Your task to perform on an android device: toggle priority inbox in the gmail app Image 0: 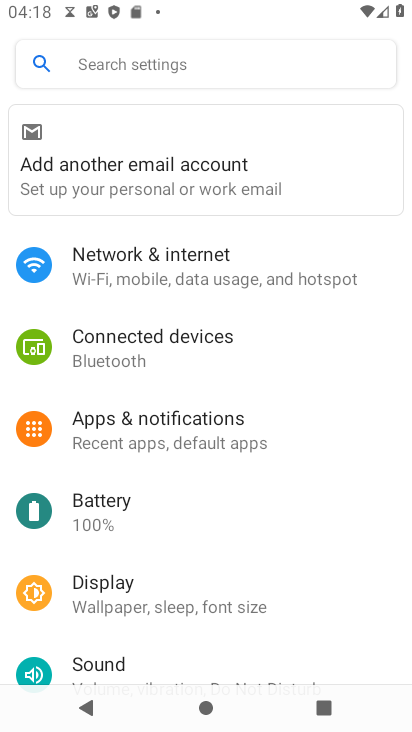
Step 0: press back button
Your task to perform on an android device: toggle priority inbox in the gmail app Image 1: 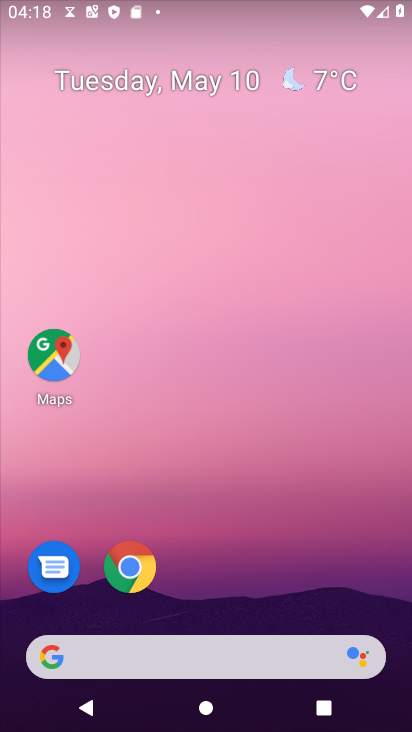
Step 1: drag from (222, 593) to (222, 182)
Your task to perform on an android device: toggle priority inbox in the gmail app Image 2: 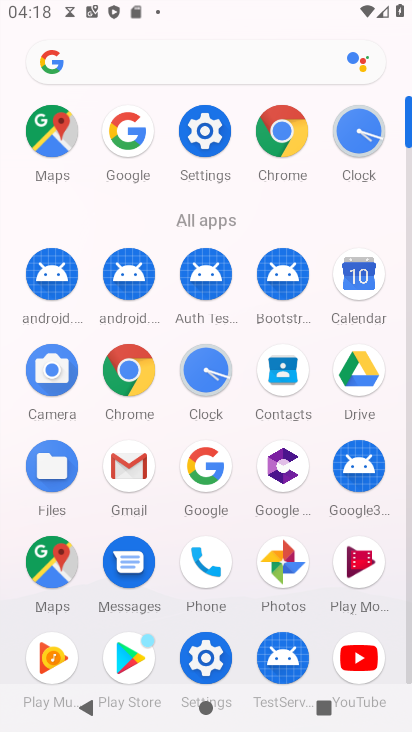
Step 2: click (129, 468)
Your task to perform on an android device: toggle priority inbox in the gmail app Image 3: 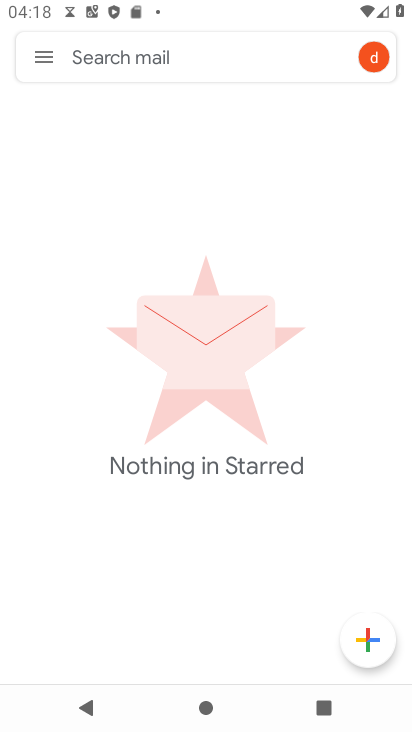
Step 3: click (36, 60)
Your task to perform on an android device: toggle priority inbox in the gmail app Image 4: 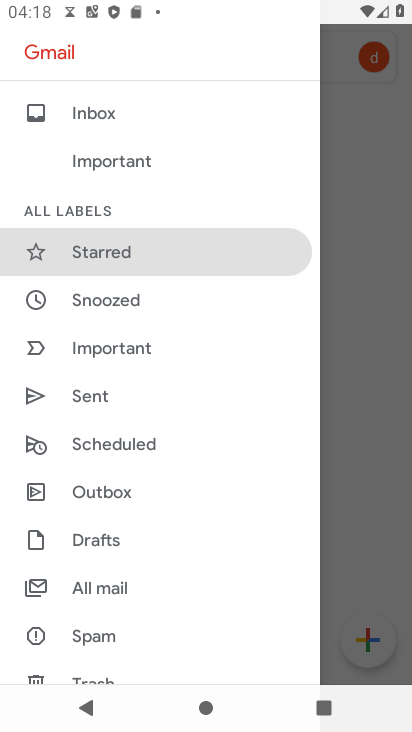
Step 4: drag from (145, 523) to (138, 383)
Your task to perform on an android device: toggle priority inbox in the gmail app Image 5: 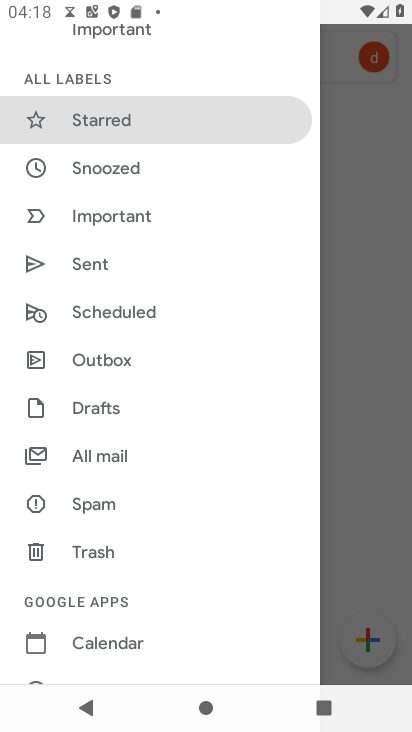
Step 5: drag from (148, 504) to (177, 399)
Your task to perform on an android device: toggle priority inbox in the gmail app Image 6: 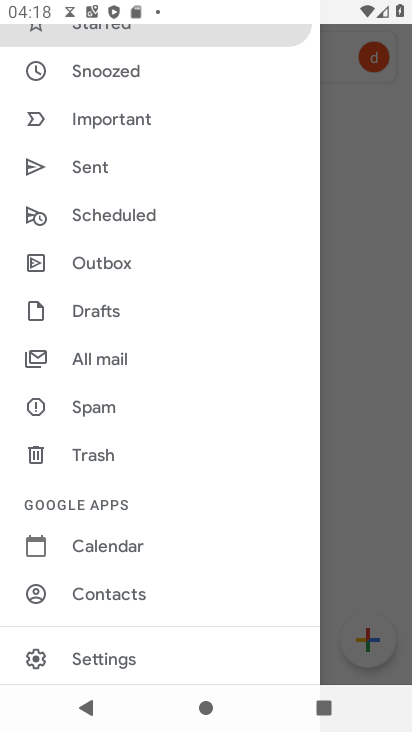
Step 6: click (94, 654)
Your task to perform on an android device: toggle priority inbox in the gmail app Image 7: 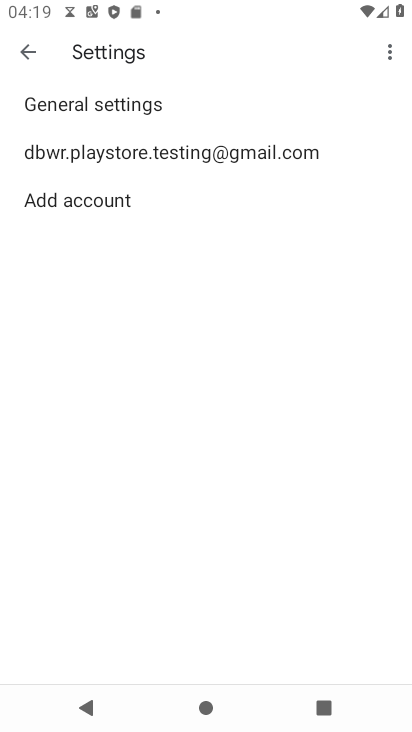
Step 7: click (161, 150)
Your task to perform on an android device: toggle priority inbox in the gmail app Image 8: 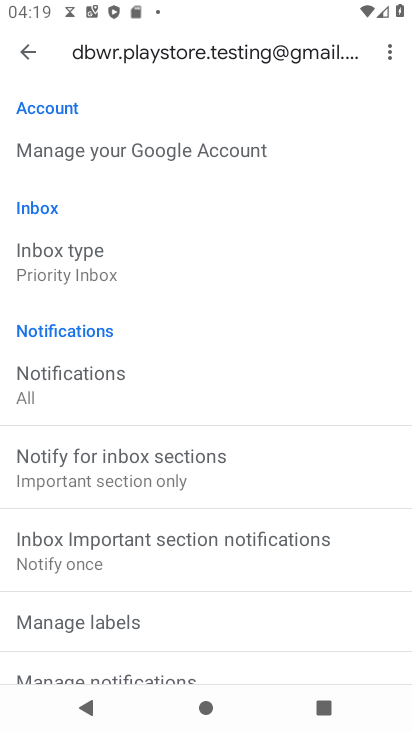
Step 8: click (87, 272)
Your task to perform on an android device: toggle priority inbox in the gmail app Image 9: 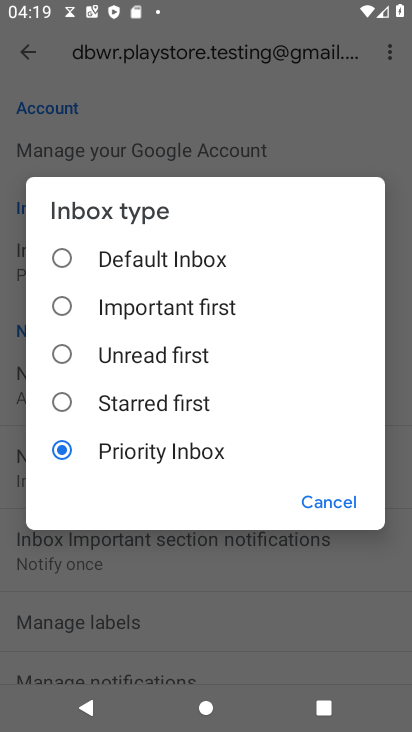
Step 9: click (62, 251)
Your task to perform on an android device: toggle priority inbox in the gmail app Image 10: 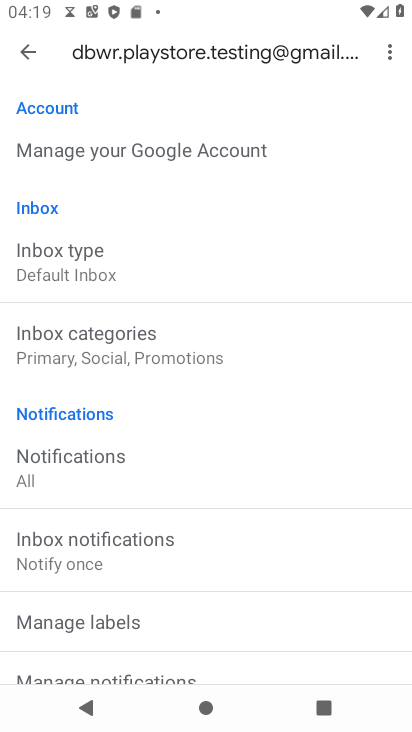
Step 10: task complete